Your task to perform on an android device: Search for Mexican restaurants on Maps Image 0: 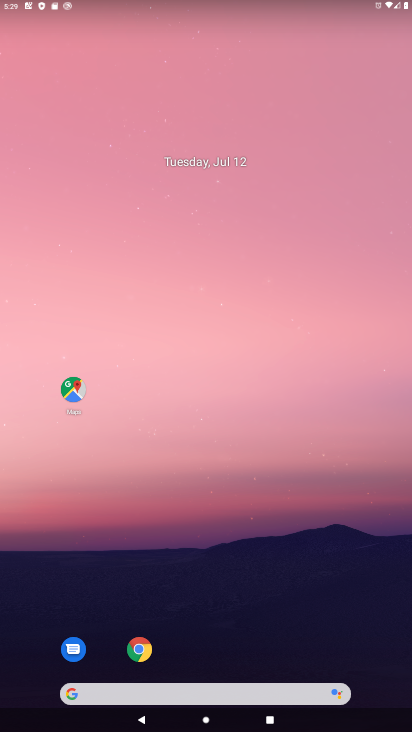
Step 0: click (72, 390)
Your task to perform on an android device: Search for Mexican restaurants on Maps Image 1: 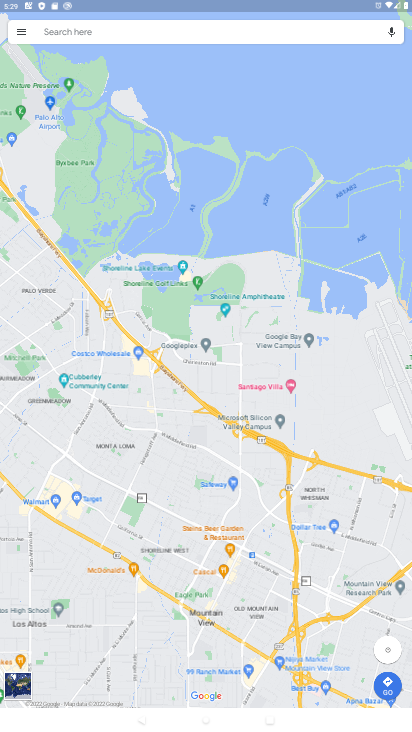
Step 1: click (101, 30)
Your task to perform on an android device: Search for Mexican restaurants on Maps Image 2: 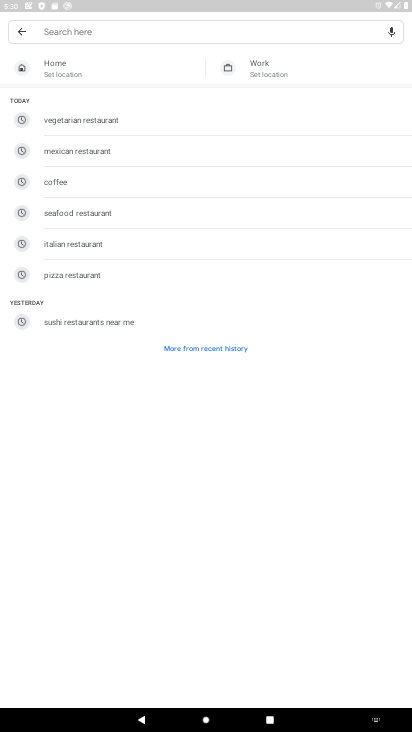
Step 2: type "Mexican restaurants"
Your task to perform on an android device: Search for Mexican restaurants on Maps Image 3: 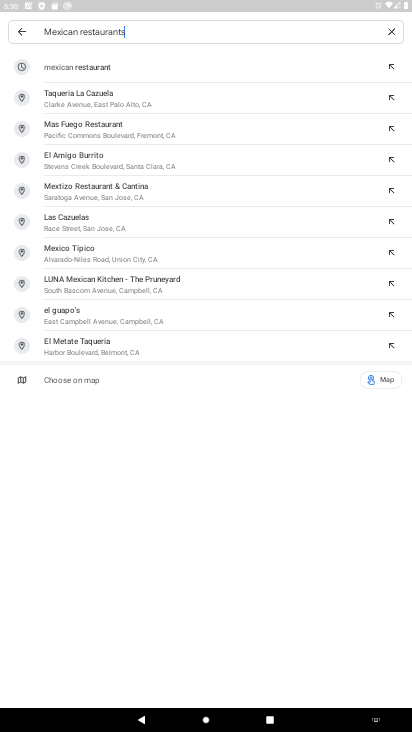
Step 3: click (101, 69)
Your task to perform on an android device: Search for Mexican restaurants on Maps Image 4: 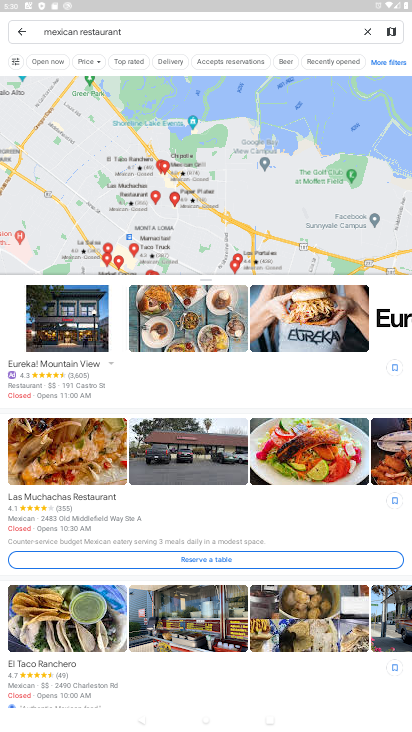
Step 4: task complete